Your task to perform on an android device: Open settings Image 0: 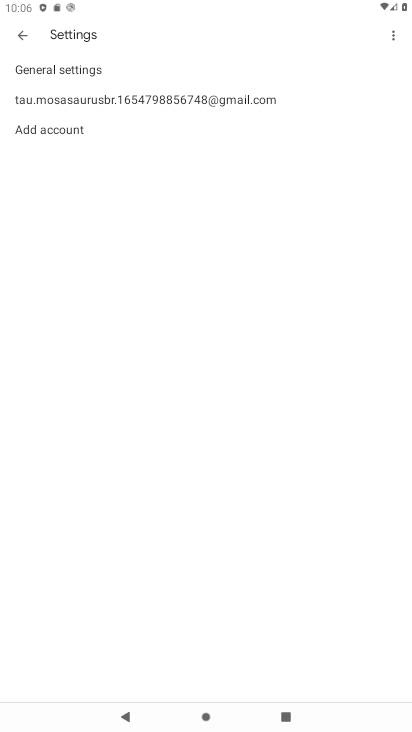
Step 0: drag from (191, 627) to (259, 98)
Your task to perform on an android device: Open settings Image 1: 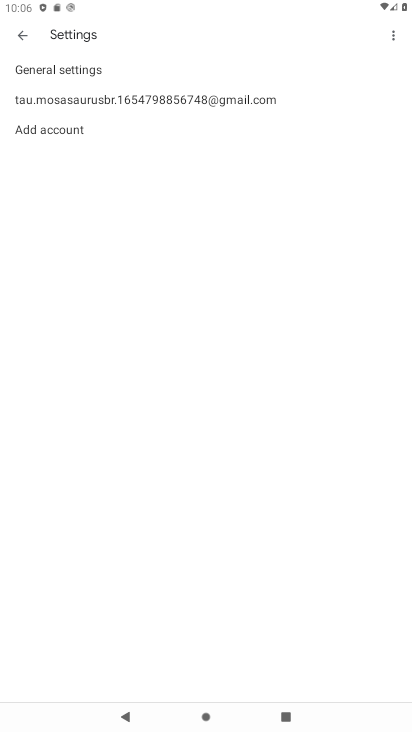
Step 1: drag from (218, 507) to (218, 149)
Your task to perform on an android device: Open settings Image 2: 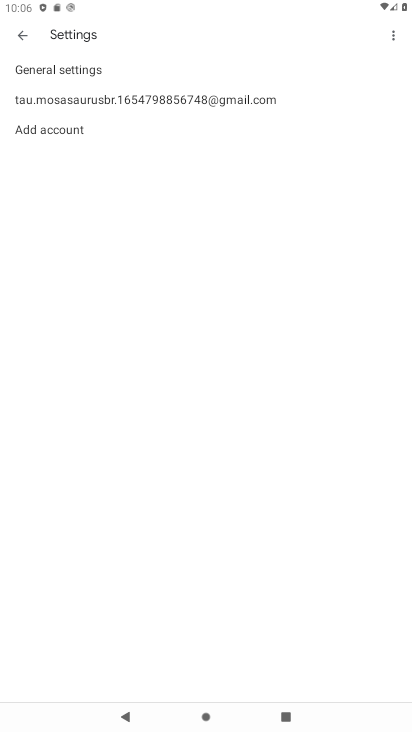
Step 2: press home button
Your task to perform on an android device: Open settings Image 3: 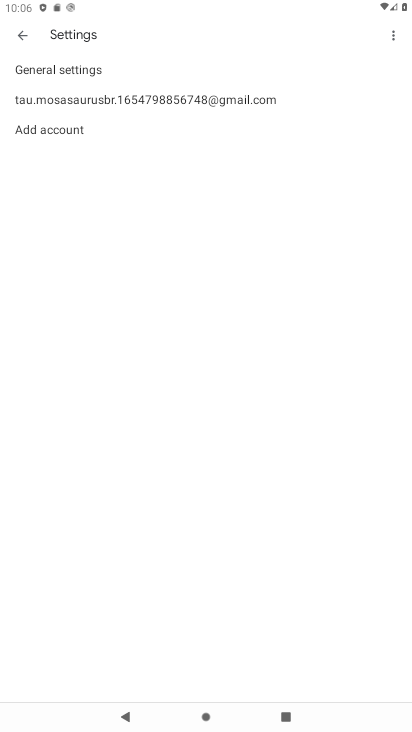
Step 3: drag from (218, 339) to (220, 229)
Your task to perform on an android device: Open settings Image 4: 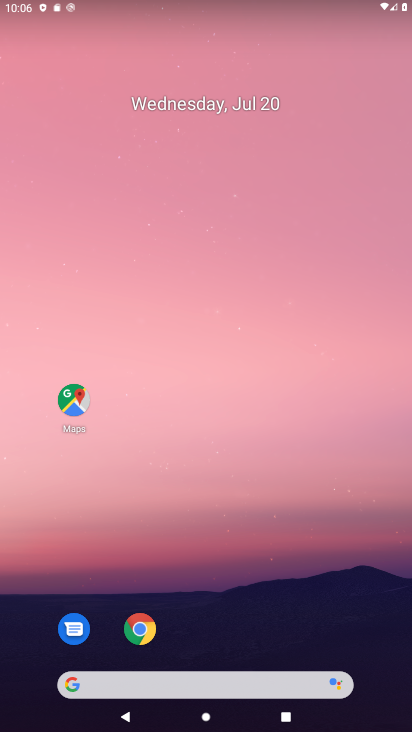
Step 4: drag from (221, 610) to (269, 106)
Your task to perform on an android device: Open settings Image 5: 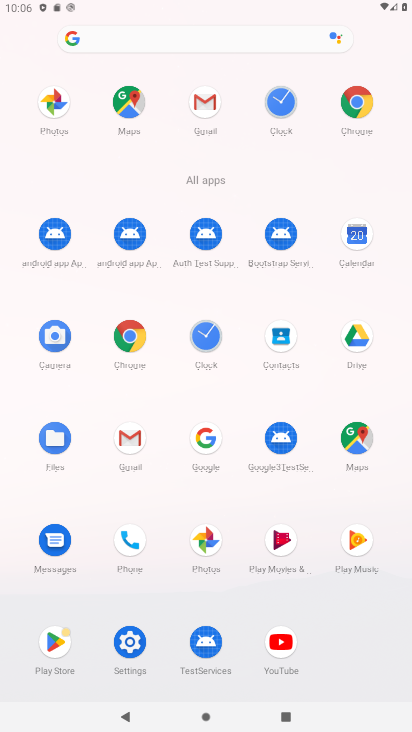
Step 5: click (119, 647)
Your task to perform on an android device: Open settings Image 6: 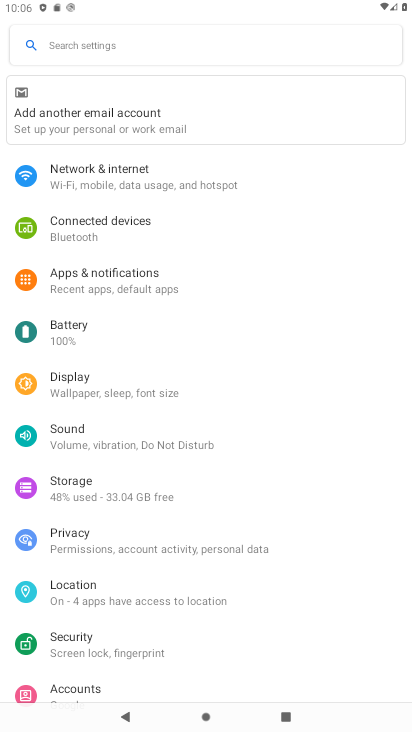
Step 6: task complete